Your task to perform on an android device: Go to Reddit.com Image 0: 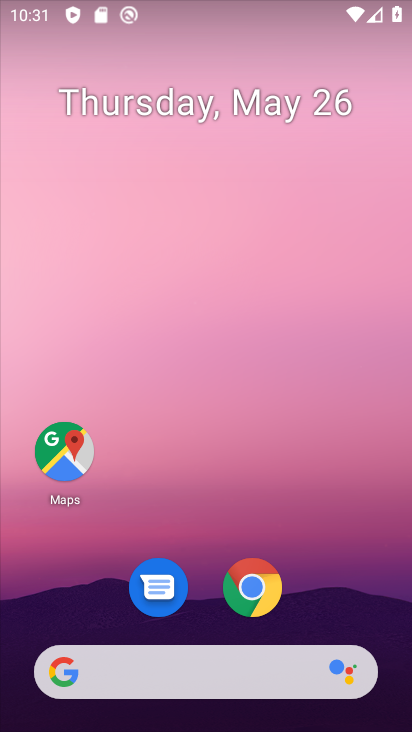
Step 0: drag from (274, 700) to (235, 185)
Your task to perform on an android device: Go to Reddit.com Image 1: 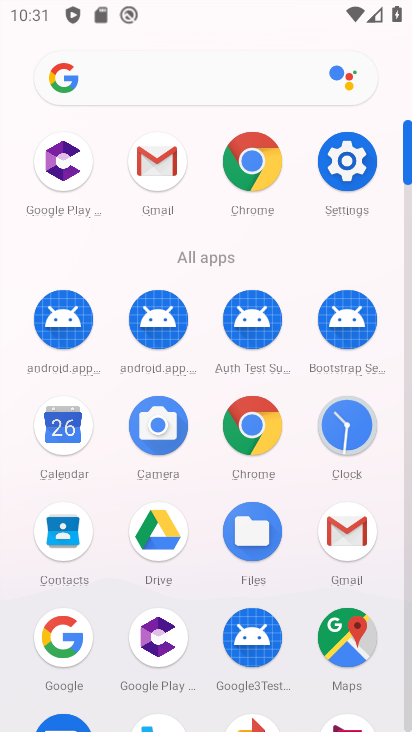
Step 1: click (249, 177)
Your task to perform on an android device: Go to Reddit.com Image 2: 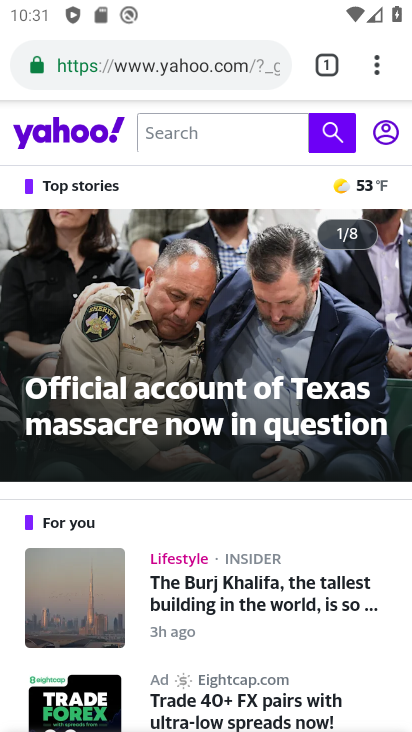
Step 2: click (144, 70)
Your task to perform on an android device: Go to Reddit.com Image 3: 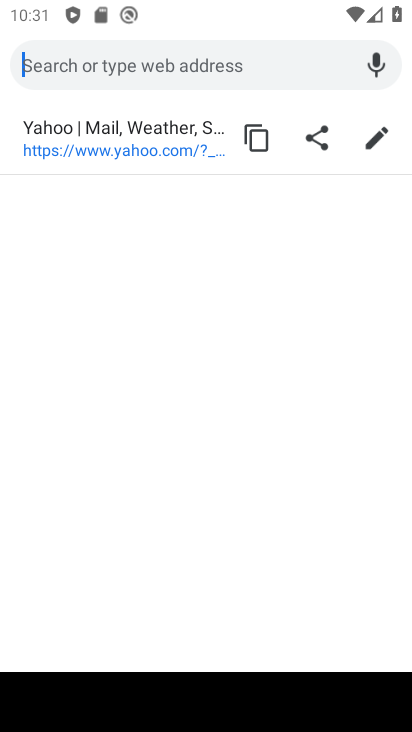
Step 3: drag from (379, 697) to (336, 425)
Your task to perform on an android device: Go to Reddit.com Image 4: 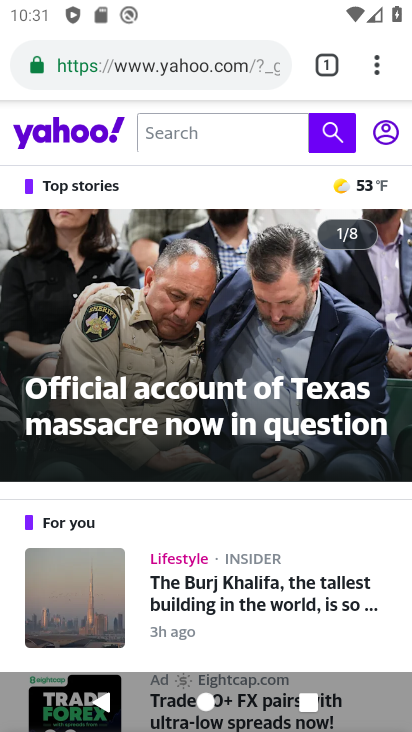
Step 4: drag from (383, 705) to (362, 498)
Your task to perform on an android device: Go to Reddit.com Image 5: 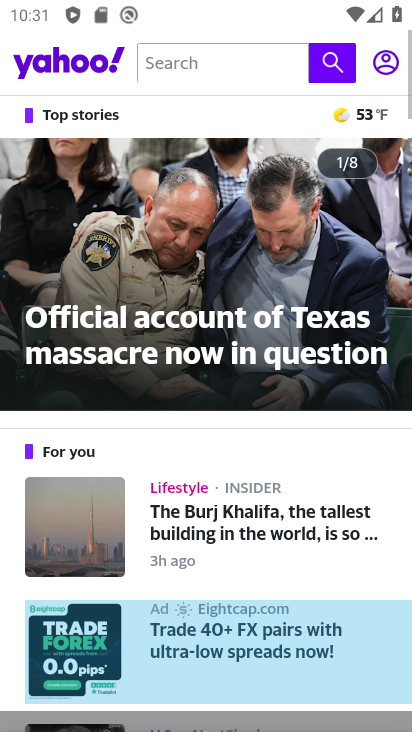
Step 5: click (144, 62)
Your task to perform on an android device: Go to Reddit.com Image 6: 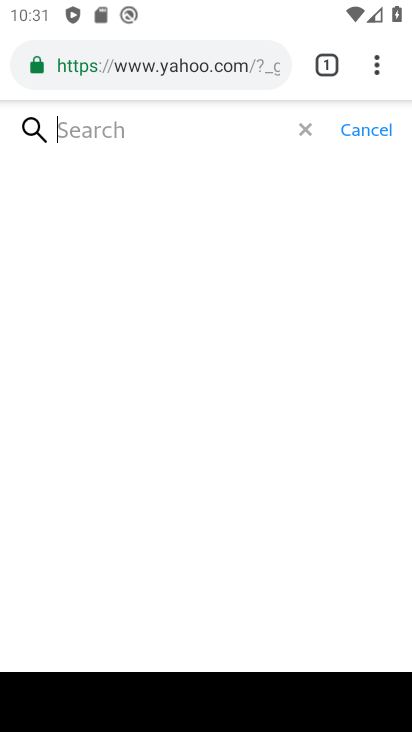
Step 6: drag from (374, 678) to (337, 580)
Your task to perform on an android device: Go to Reddit.com Image 7: 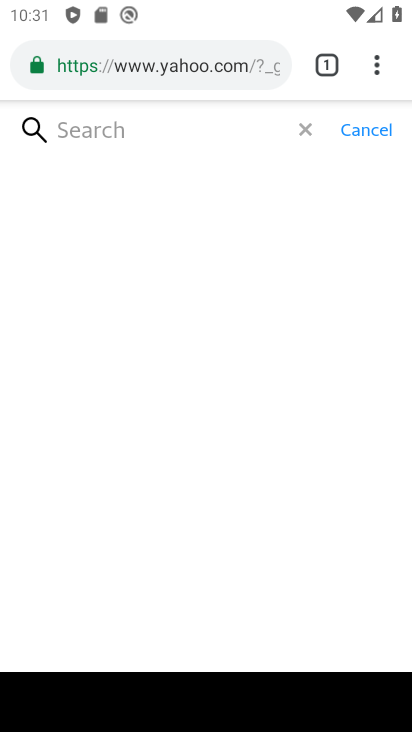
Step 7: drag from (366, 679) to (343, 559)
Your task to perform on an android device: Go to Reddit.com Image 8: 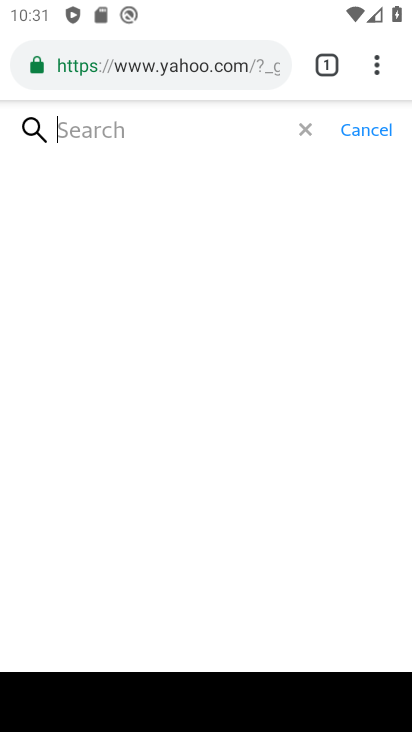
Step 8: drag from (376, 675) to (347, 510)
Your task to perform on an android device: Go to Reddit.com Image 9: 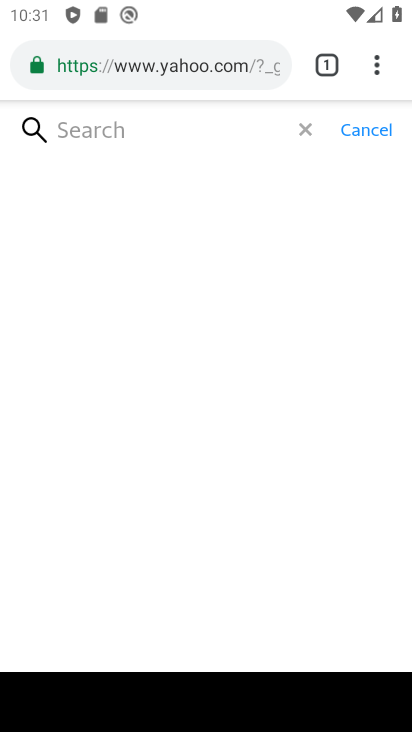
Step 9: drag from (380, 701) to (380, 423)
Your task to perform on an android device: Go to Reddit.com Image 10: 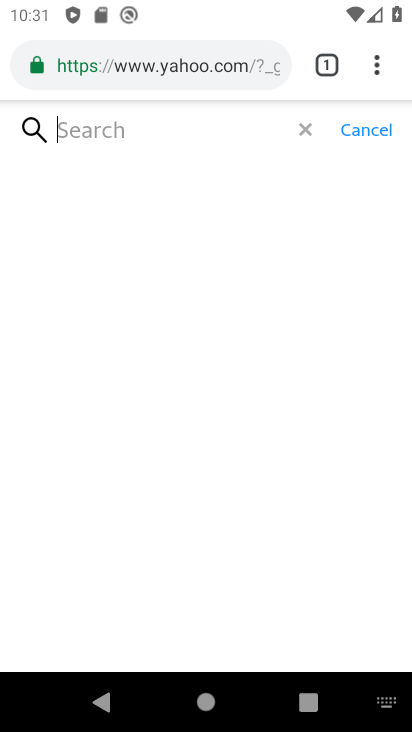
Step 10: click (397, 698)
Your task to perform on an android device: Go to Reddit.com Image 11: 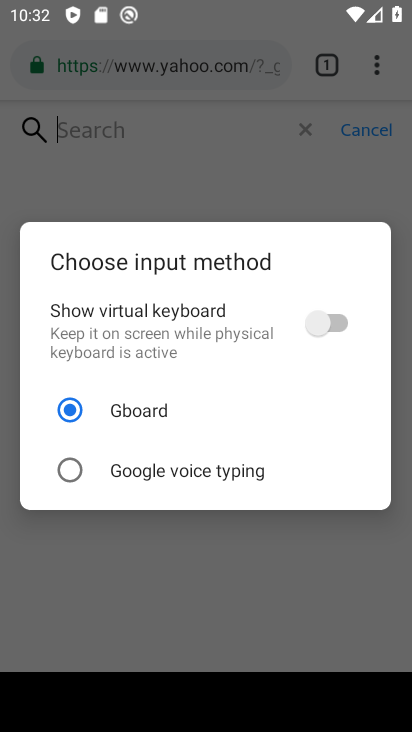
Step 11: click (328, 320)
Your task to perform on an android device: Go to Reddit.com Image 12: 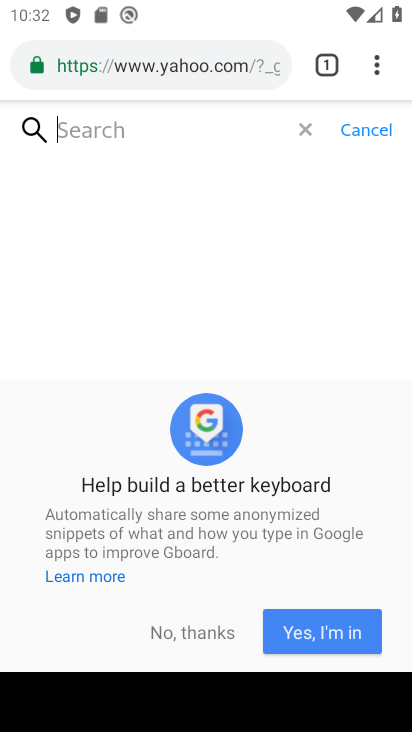
Step 12: click (227, 67)
Your task to perform on an android device: Go to Reddit.com Image 13: 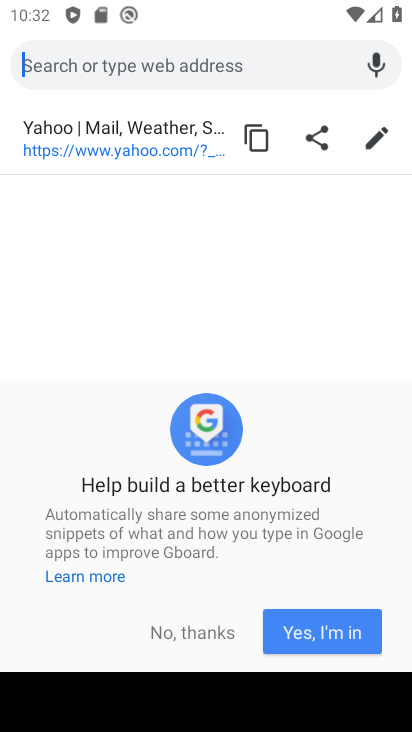
Step 13: click (196, 640)
Your task to perform on an android device: Go to Reddit.com Image 14: 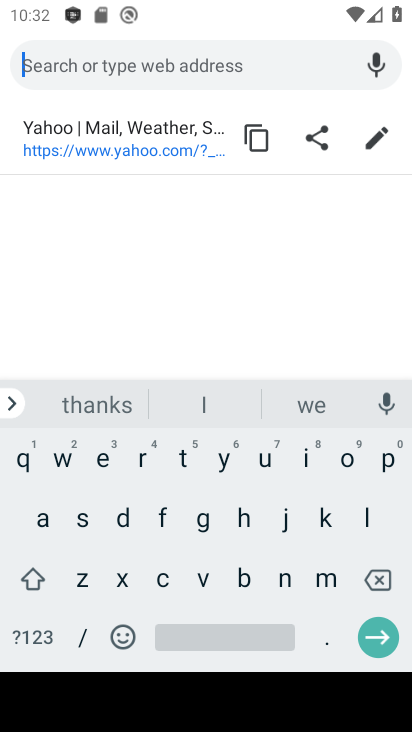
Step 14: click (140, 458)
Your task to perform on an android device: Go to Reddit.com Image 15: 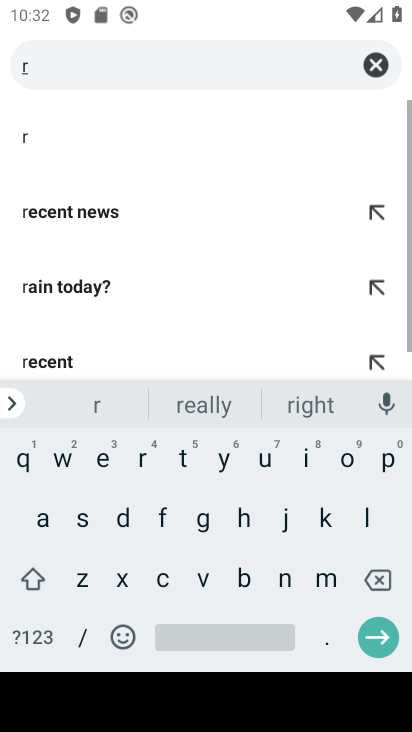
Step 15: click (102, 458)
Your task to perform on an android device: Go to Reddit.com Image 16: 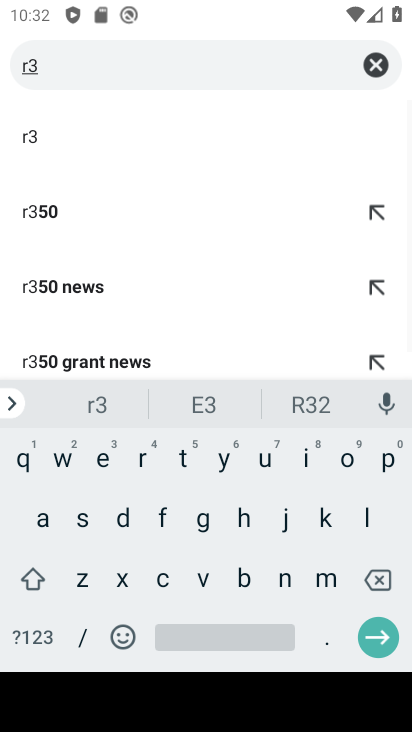
Step 16: click (373, 575)
Your task to perform on an android device: Go to Reddit.com Image 17: 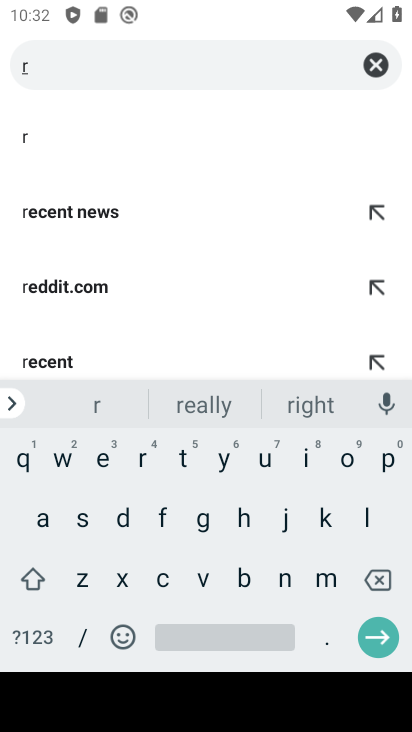
Step 17: click (64, 277)
Your task to perform on an android device: Go to Reddit.com Image 18: 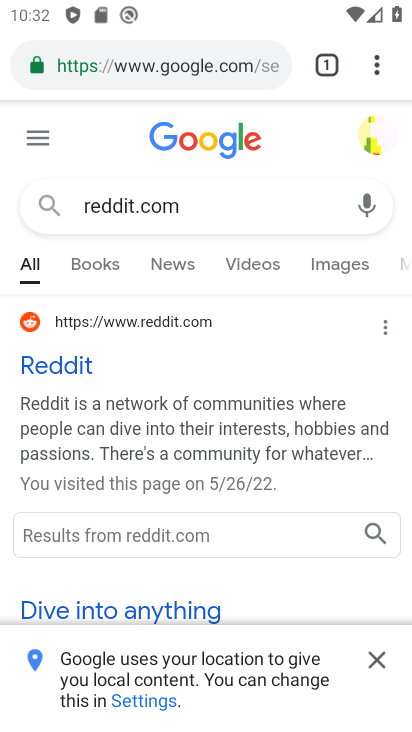
Step 18: click (83, 355)
Your task to perform on an android device: Go to Reddit.com Image 19: 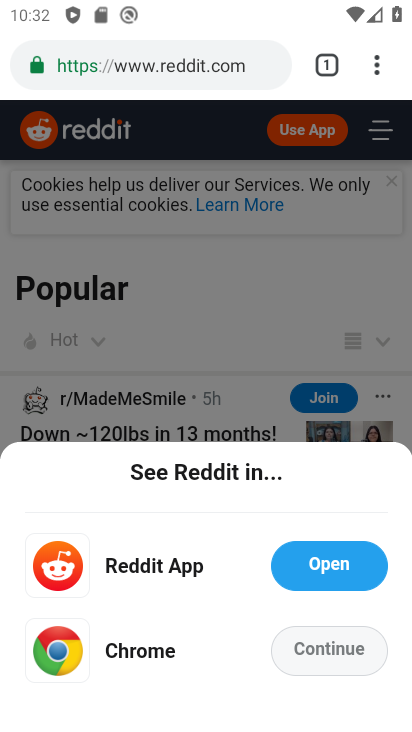
Step 19: click (326, 638)
Your task to perform on an android device: Go to Reddit.com Image 20: 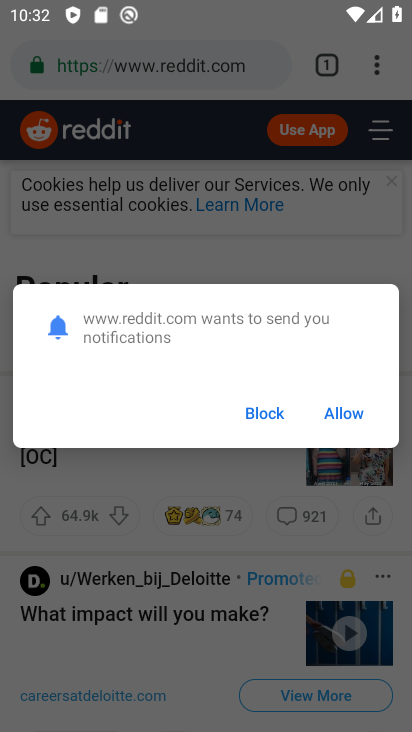
Step 20: click (336, 406)
Your task to perform on an android device: Go to Reddit.com Image 21: 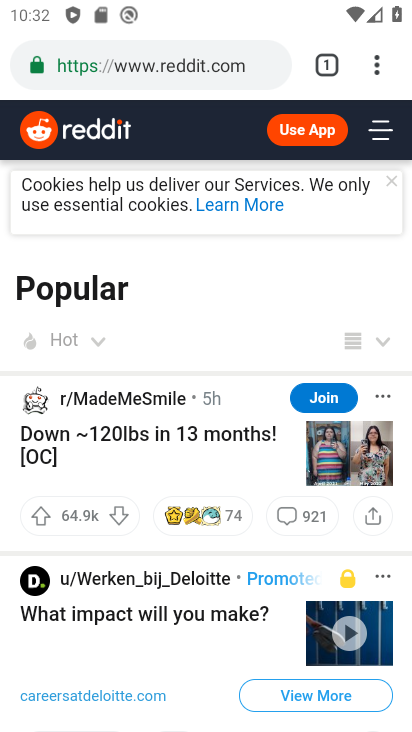
Step 21: task complete